Your task to perform on an android device: Check the settings for the Google Chrome app Image 0: 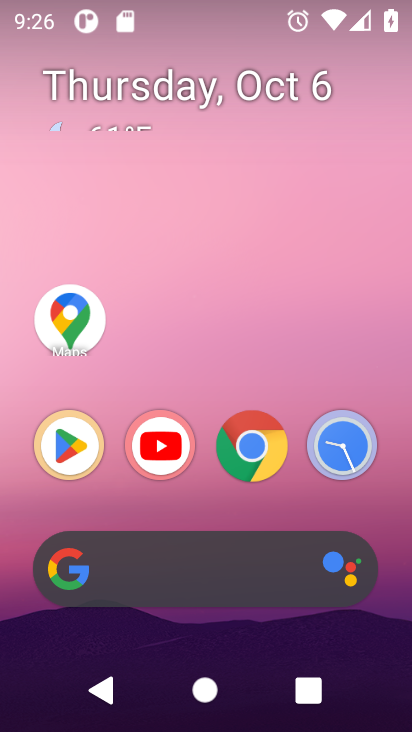
Step 0: click (237, 451)
Your task to perform on an android device: Check the settings for the Google Chrome app Image 1: 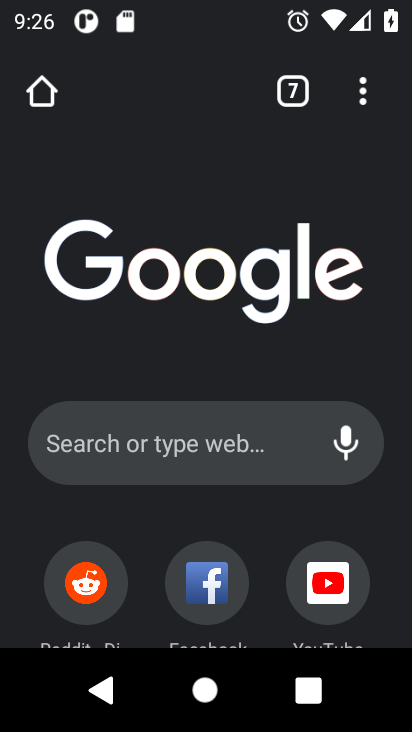
Step 1: click (358, 86)
Your task to perform on an android device: Check the settings for the Google Chrome app Image 2: 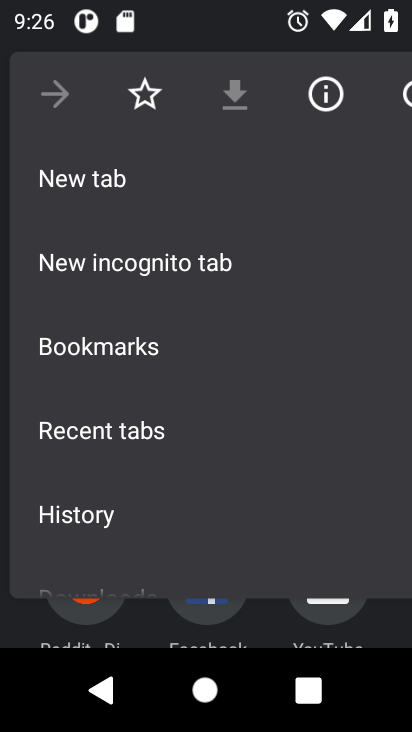
Step 2: drag from (128, 520) to (146, 329)
Your task to perform on an android device: Check the settings for the Google Chrome app Image 3: 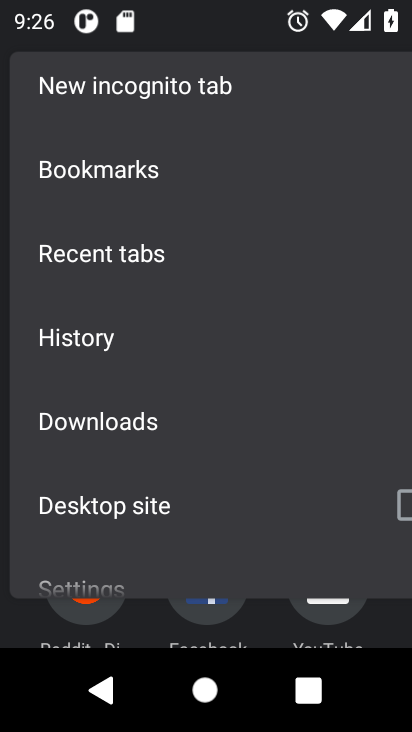
Step 3: click (158, 584)
Your task to perform on an android device: Check the settings for the Google Chrome app Image 4: 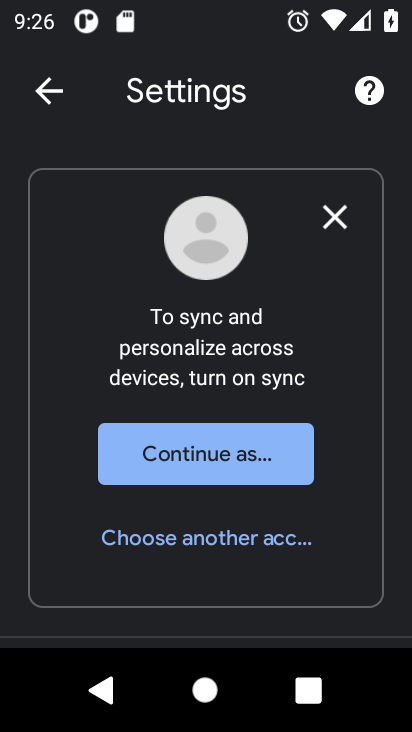
Step 4: task complete